Your task to perform on an android device: Open Chrome and go to settings Image 0: 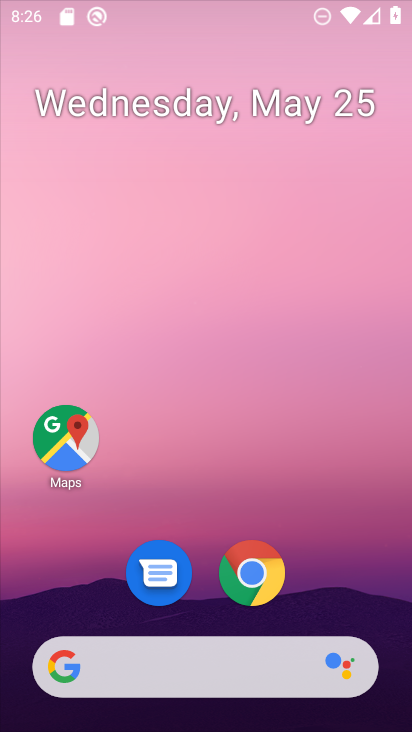
Step 0: click (67, 436)
Your task to perform on an android device: Open Chrome and go to settings Image 1: 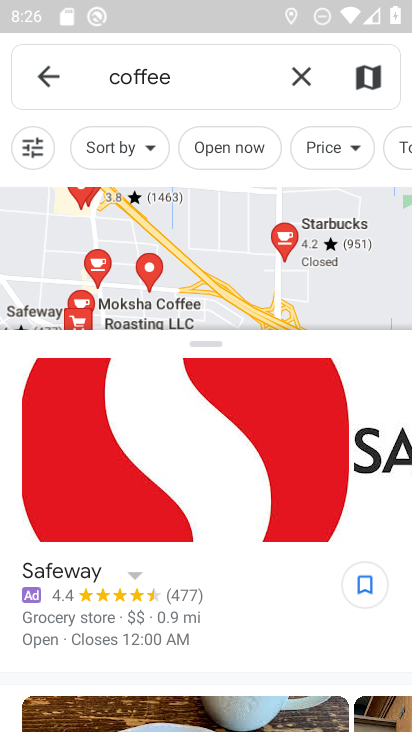
Step 1: press home button
Your task to perform on an android device: Open Chrome and go to settings Image 2: 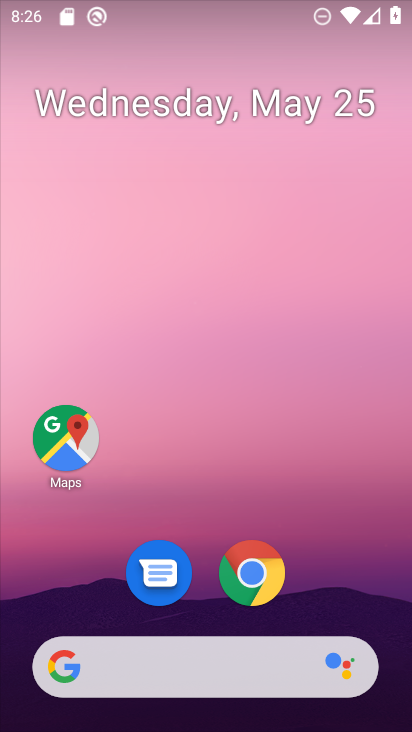
Step 2: click (253, 573)
Your task to perform on an android device: Open Chrome and go to settings Image 3: 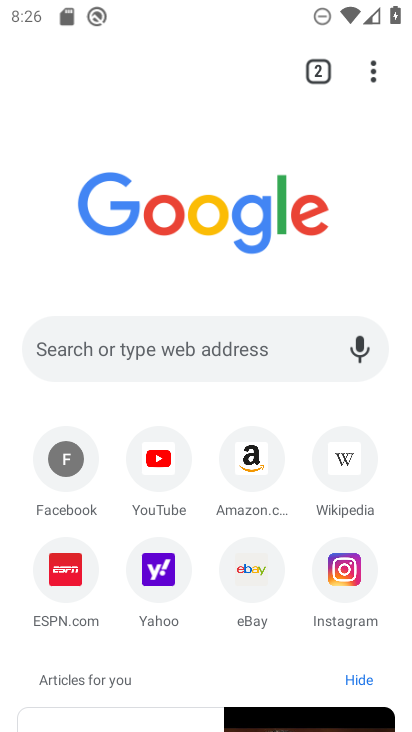
Step 3: click (369, 69)
Your task to perform on an android device: Open Chrome and go to settings Image 4: 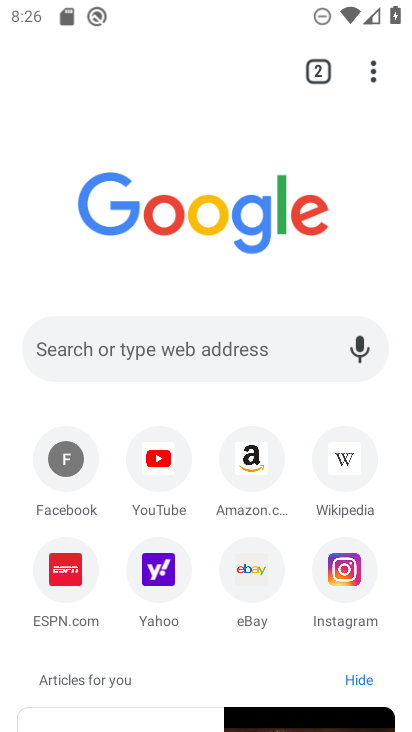
Step 4: click (365, 63)
Your task to perform on an android device: Open Chrome and go to settings Image 5: 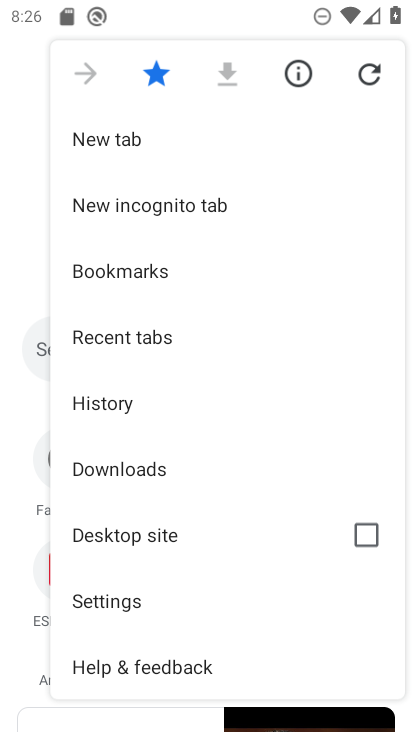
Step 5: click (97, 597)
Your task to perform on an android device: Open Chrome and go to settings Image 6: 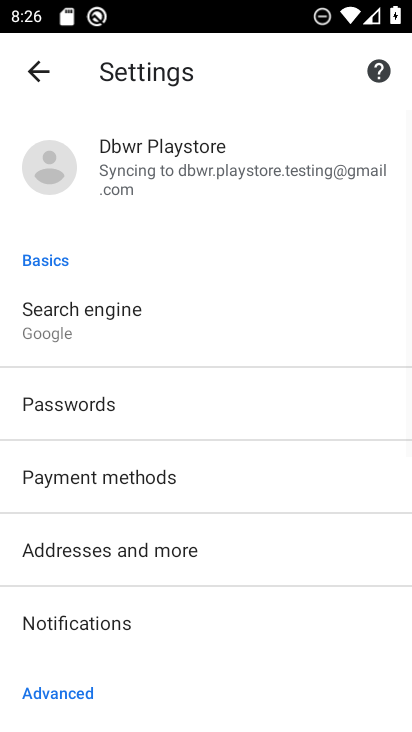
Step 6: task complete